Your task to perform on an android device: toggle improve location accuracy Image 0: 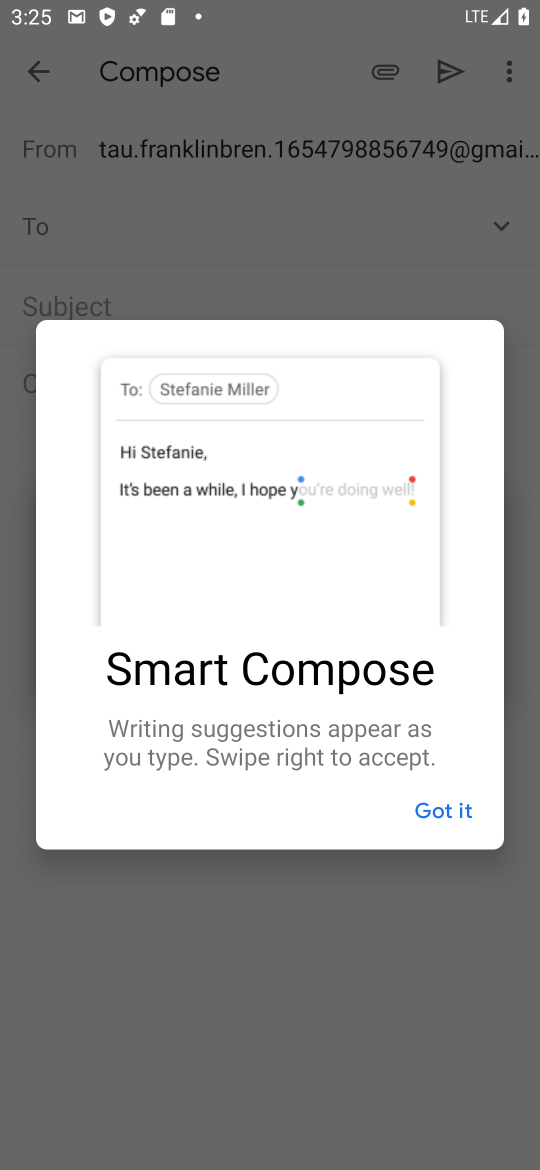
Step 0: press home button
Your task to perform on an android device: toggle improve location accuracy Image 1: 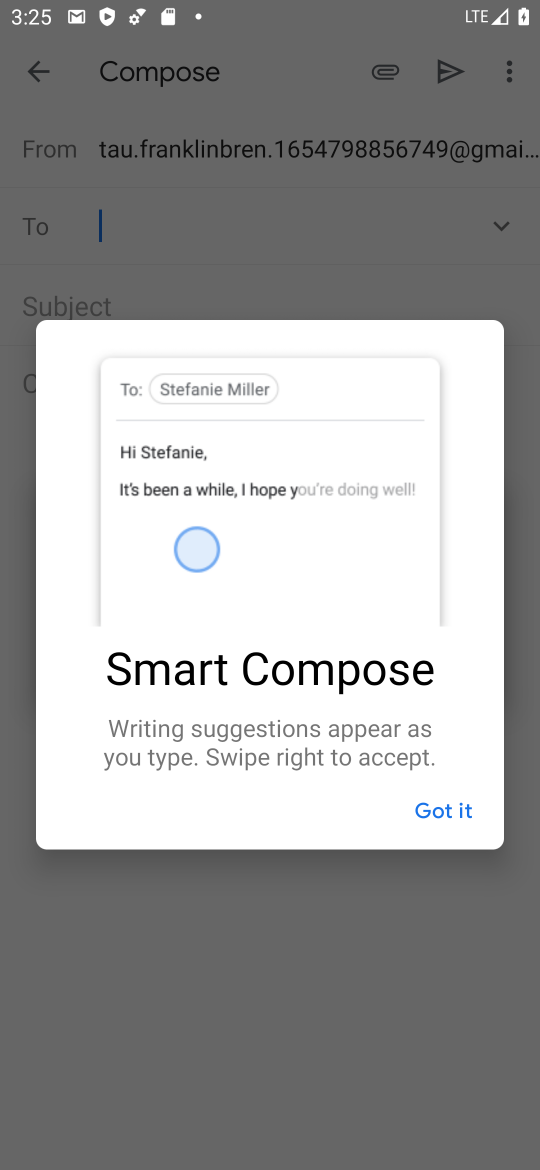
Step 1: press home button
Your task to perform on an android device: toggle improve location accuracy Image 2: 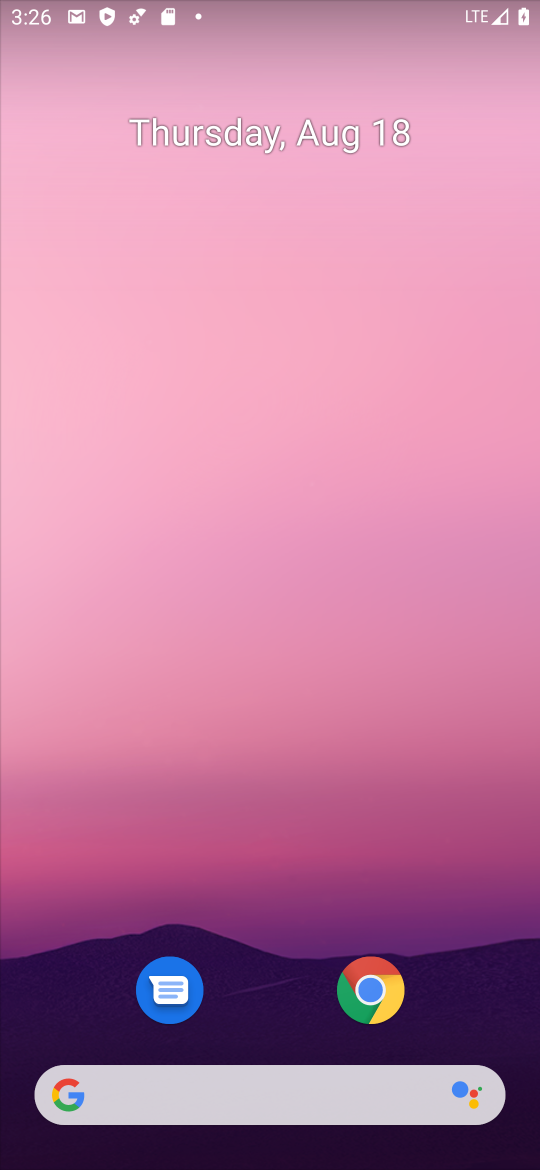
Step 2: drag from (290, 418) to (331, 14)
Your task to perform on an android device: toggle improve location accuracy Image 3: 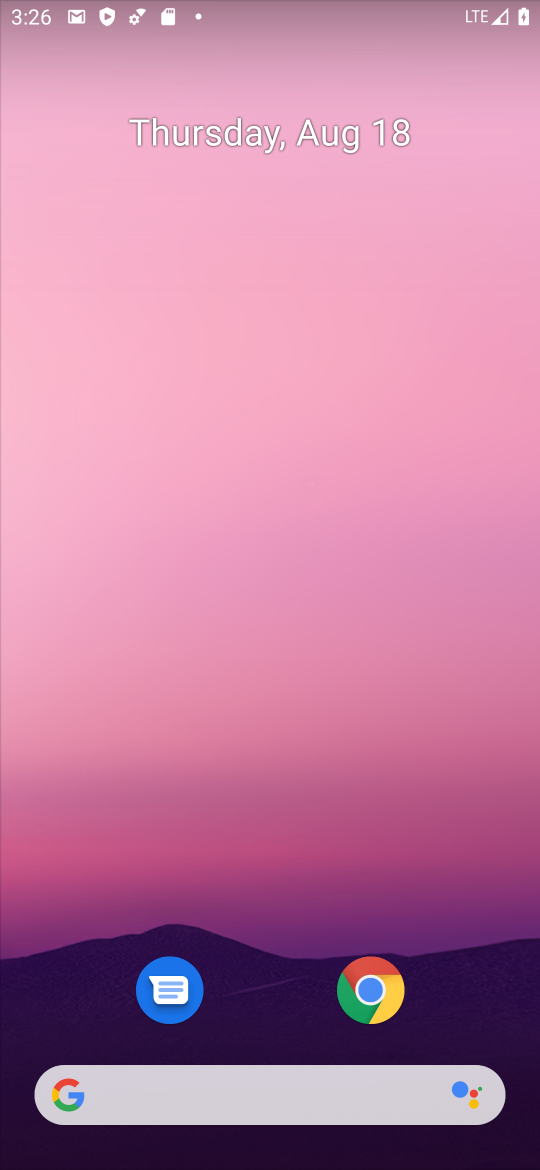
Step 3: drag from (291, 811) to (354, 42)
Your task to perform on an android device: toggle improve location accuracy Image 4: 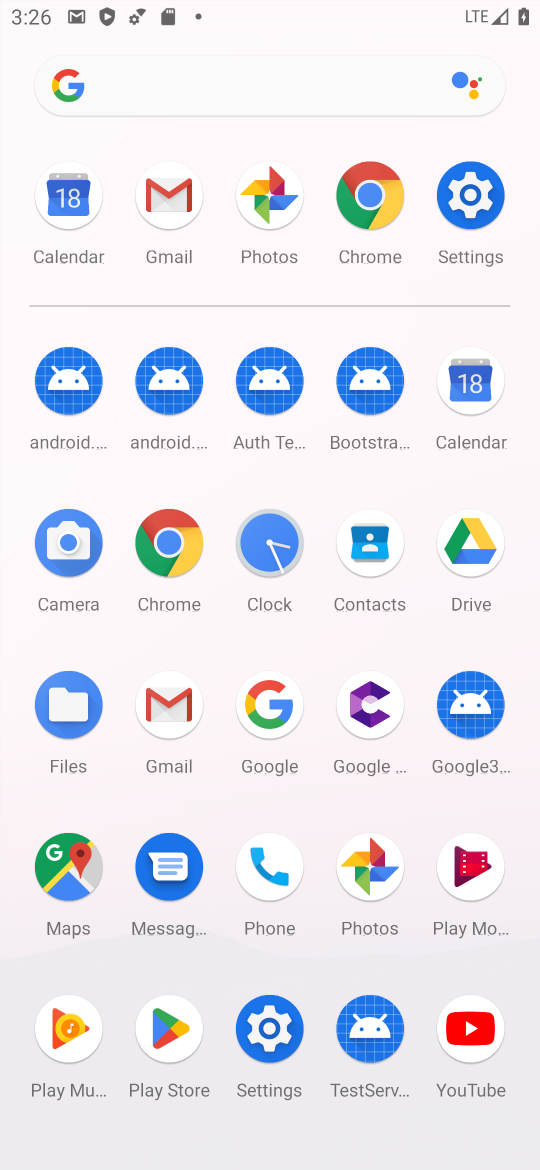
Step 4: click (262, 1043)
Your task to perform on an android device: toggle improve location accuracy Image 5: 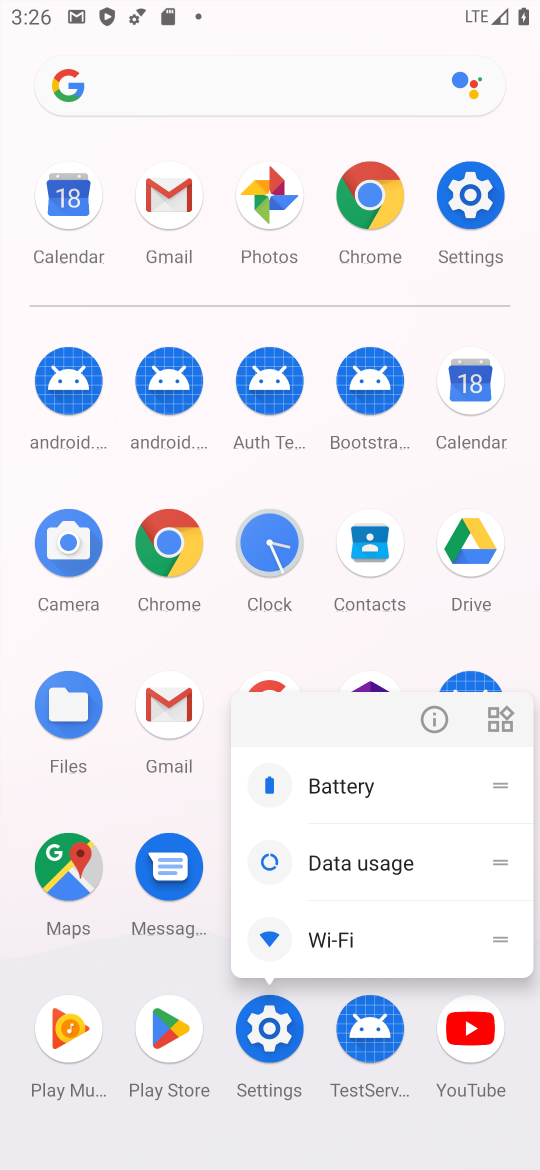
Step 5: click (278, 1027)
Your task to perform on an android device: toggle improve location accuracy Image 6: 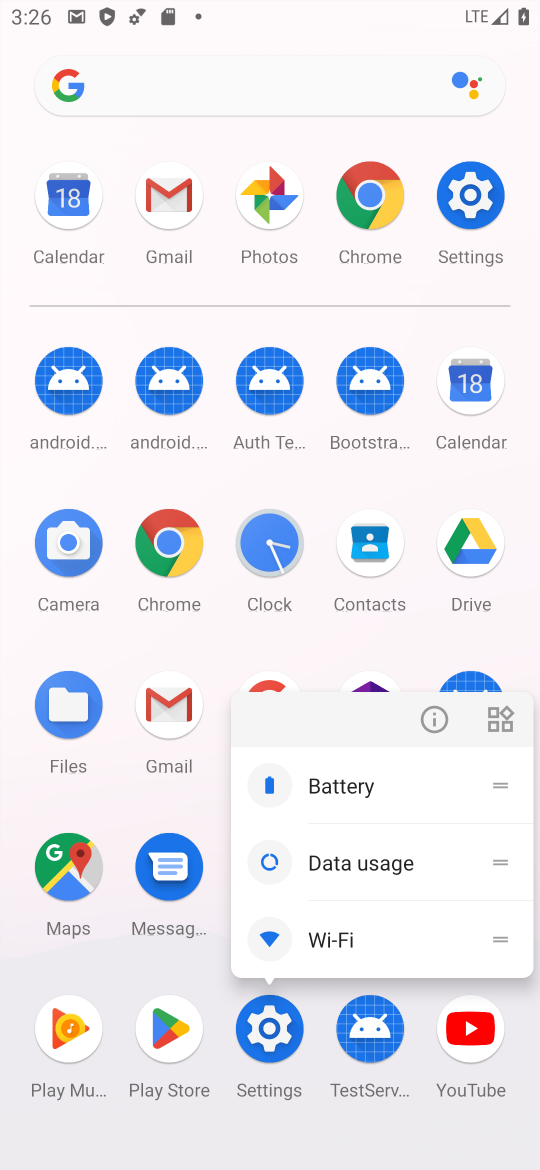
Step 6: click (248, 1029)
Your task to perform on an android device: toggle improve location accuracy Image 7: 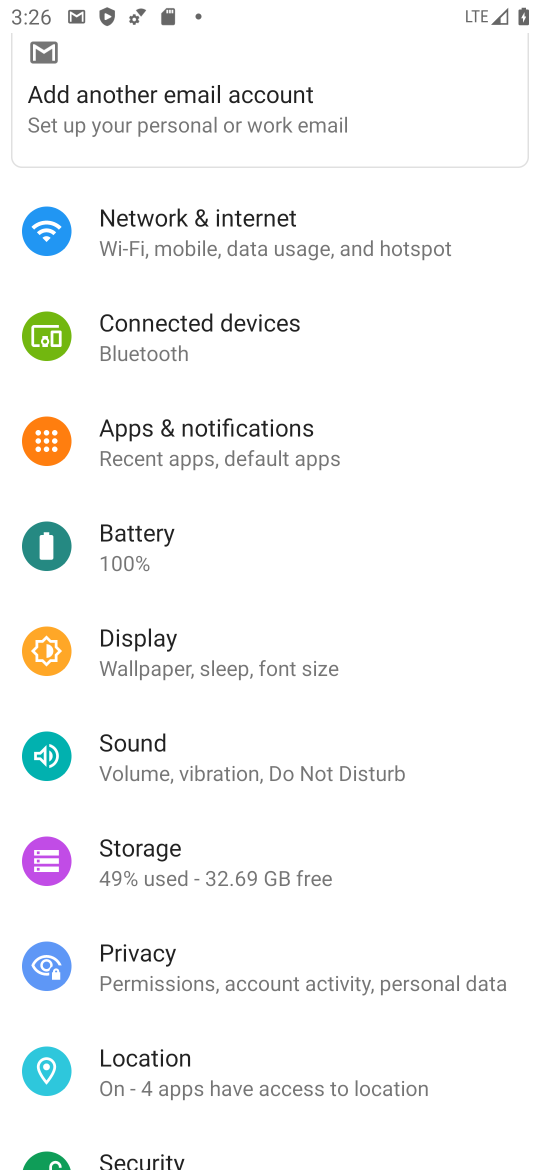
Step 7: drag from (272, 838) to (312, 295)
Your task to perform on an android device: toggle improve location accuracy Image 8: 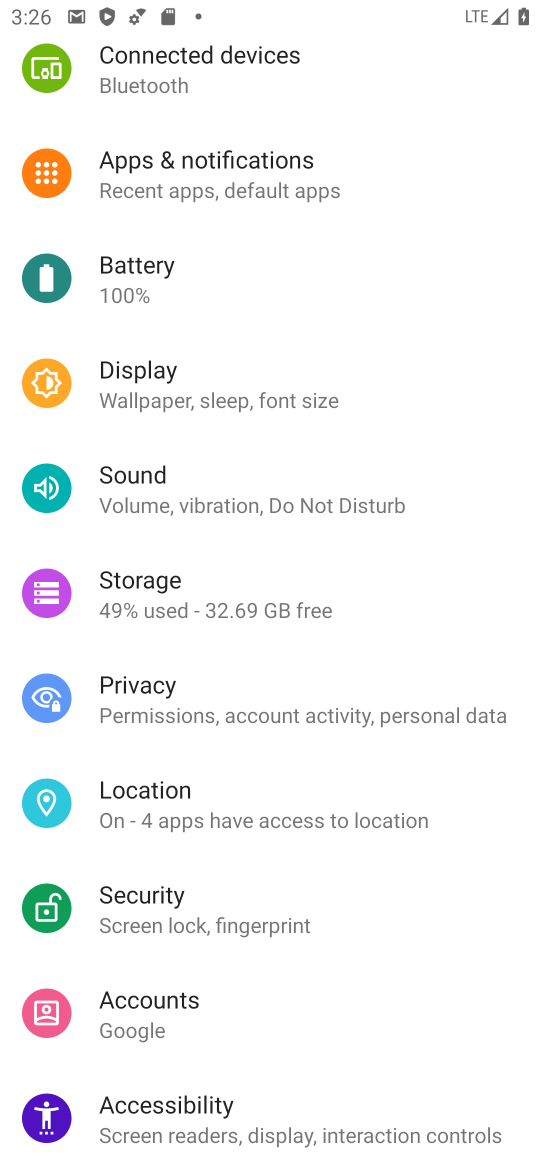
Step 8: click (190, 815)
Your task to perform on an android device: toggle improve location accuracy Image 9: 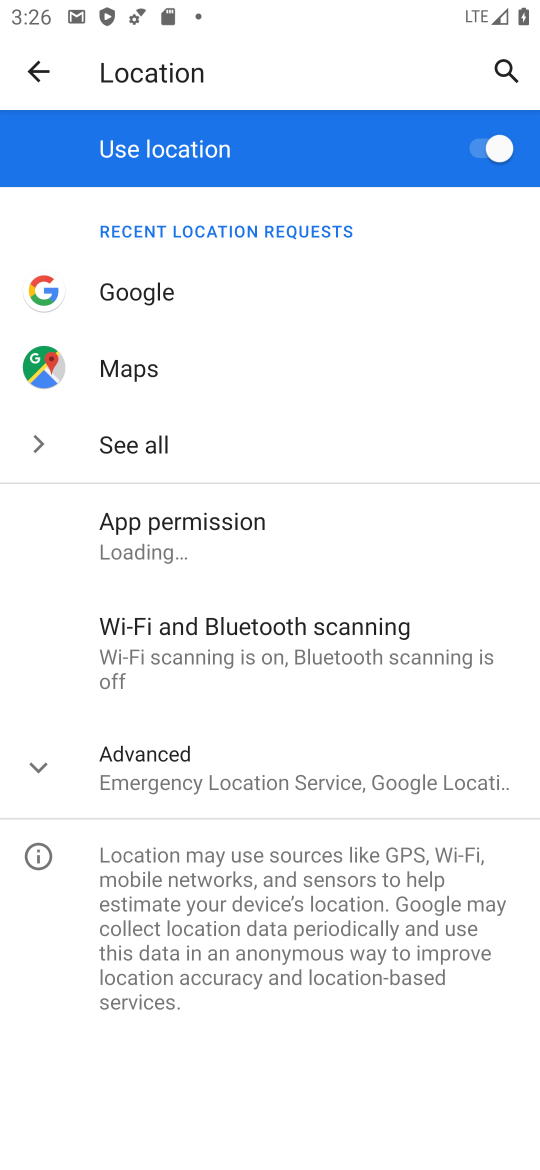
Step 9: click (207, 777)
Your task to perform on an android device: toggle improve location accuracy Image 10: 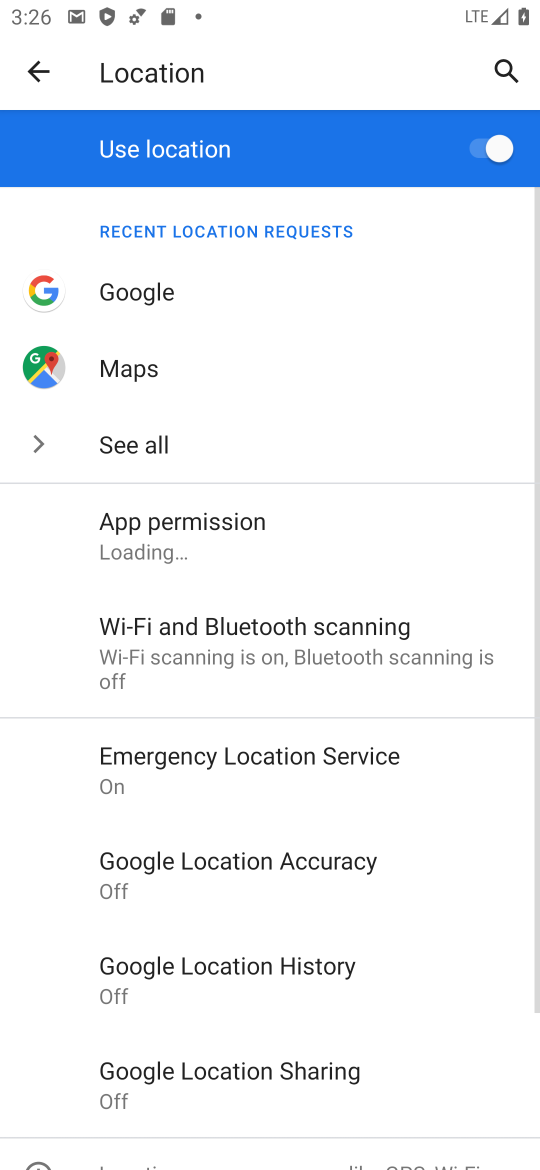
Step 10: click (262, 861)
Your task to perform on an android device: toggle improve location accuracy Image 11: 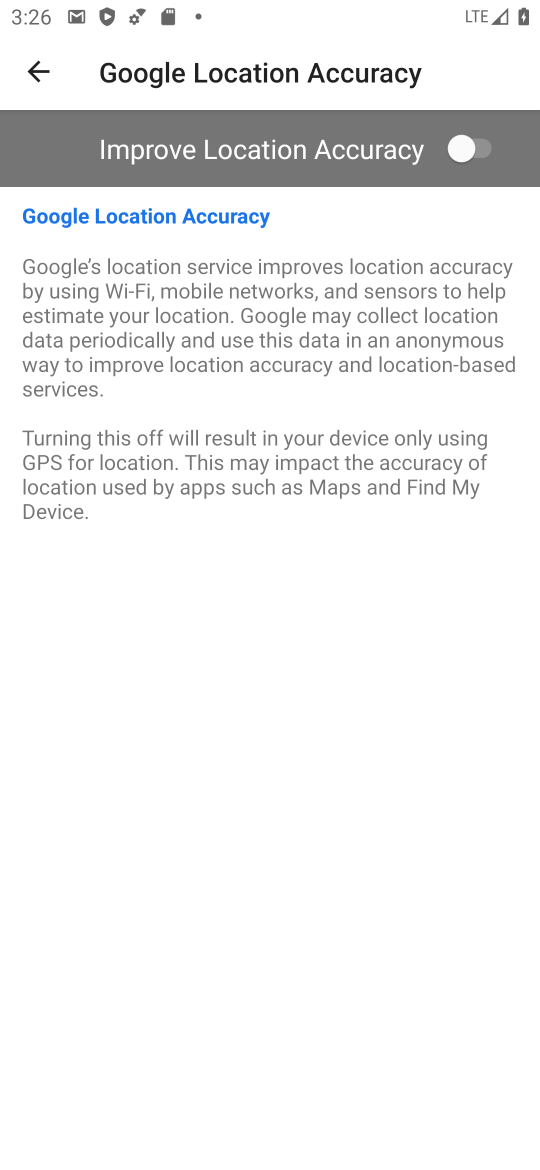
Step 11: click (440, 142)
Your task to perform on an android device: toggle improve location accuracy Image 12: 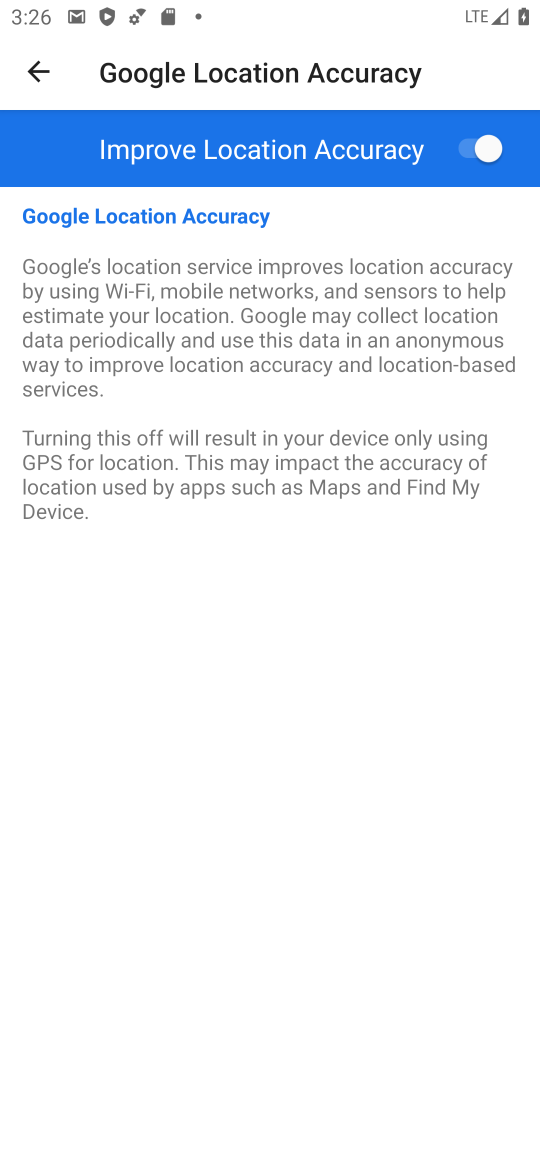
Step 12: task complete